Your task to perform on an android device: turn pop-ups on in chrome Image 0: 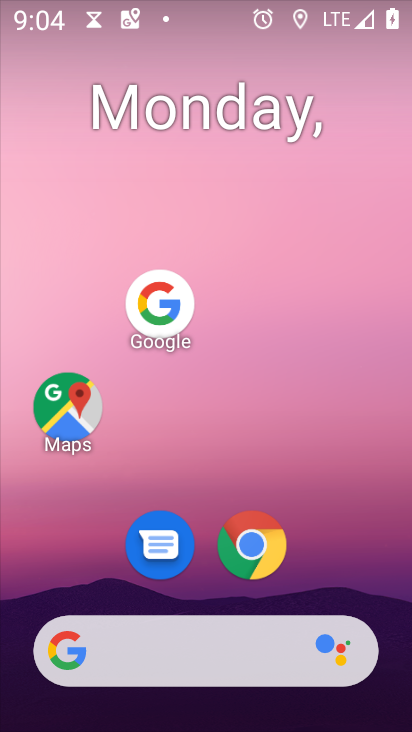
Step 0: press home button
Your task to perform on an android device: turn pop-ups on in chrome Image 1: 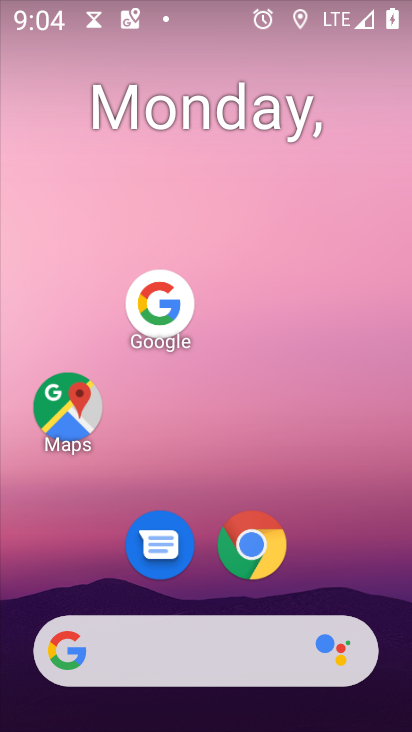
Step 1: click (246, 559)
Your task to perform on an android device: turn pop-ups on in chrome Image 2: 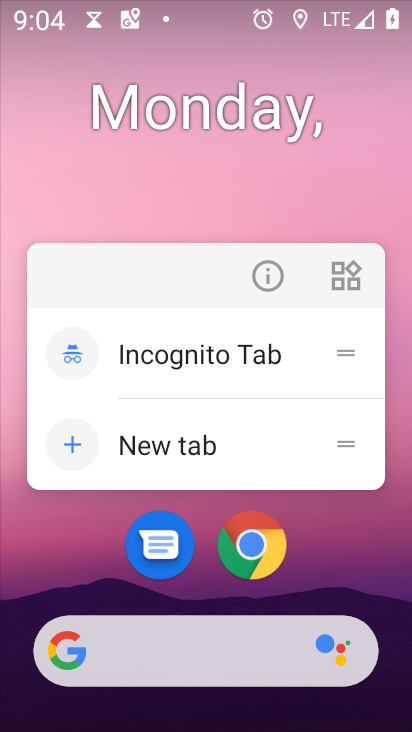
Step 2: click (251, 555)
Your task to perform on an android device: turn pop-ups on in chrome Image 3: 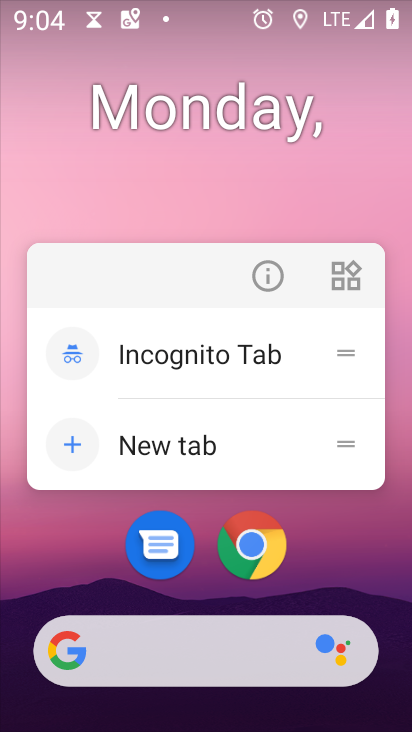
Step 3: click (271, 538)
Your task to perform on an android device: turn pop-ups on in chrome Image 4: 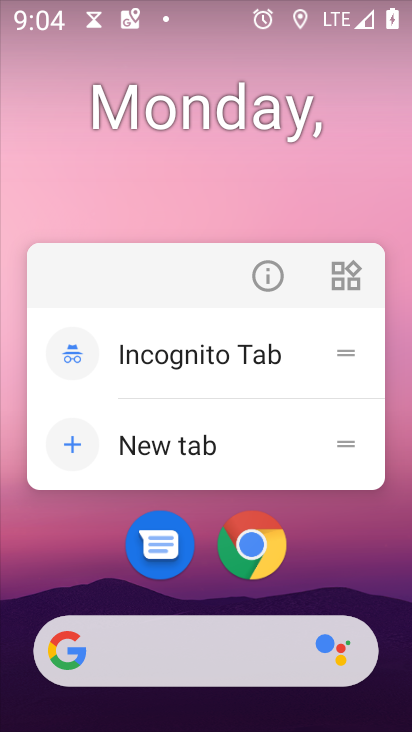
Step 4: click (271, 539)
Your task to perform on an android device: turn pop-ups on in chrome Image 5: 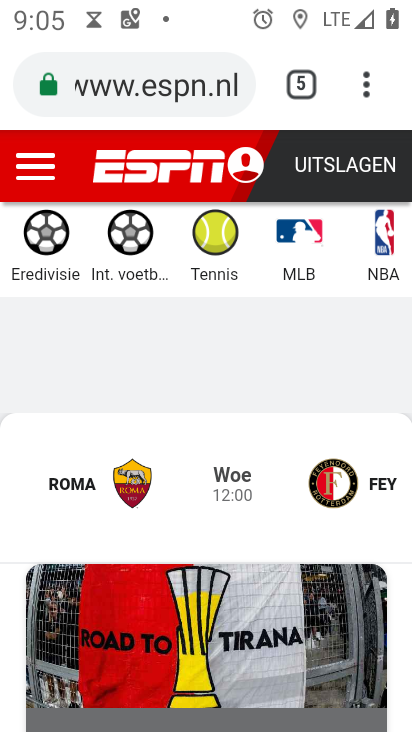
Step 5: drag from (363, 102) to (217, 606)
Your task to perform on an android device: turn pop-ups on in chrome Image 6: 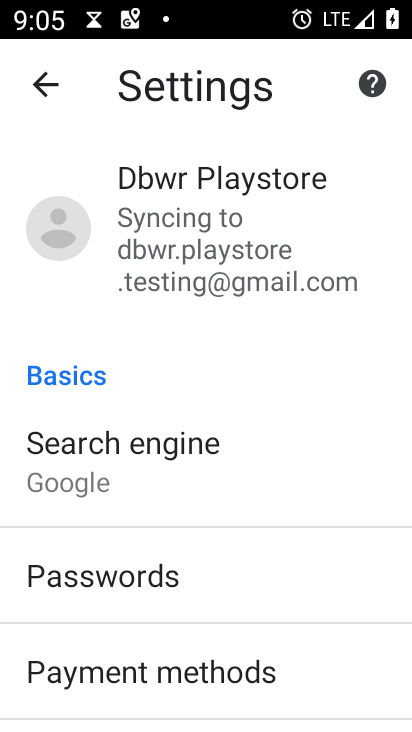
Step 6: drag from (191, 689) to (240, 250)
Your task to perform on an android device: turn pop-ups on in chrome Image 7: 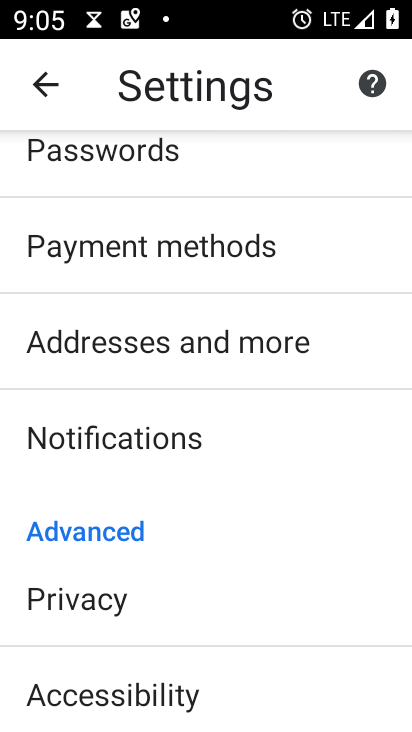
Step 7: drag from (221, 591) to (261, 219)
Your task to perform on an android device: turn pop-ups on in chrome Image 8: 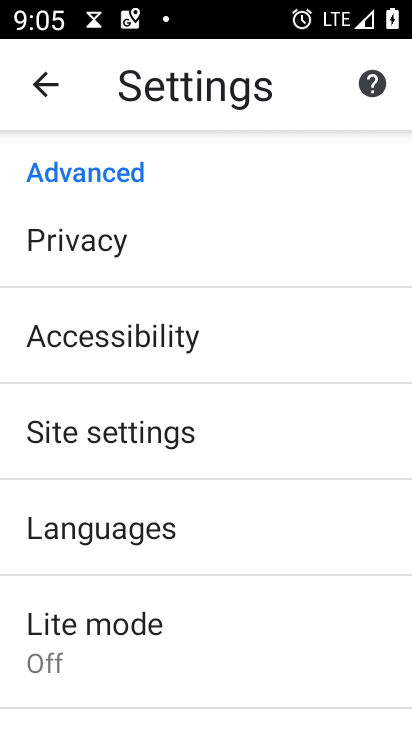
Step 8: click (154, 432)
Your task to perform on an android device: turn pop-ups on in chrome Image 9: 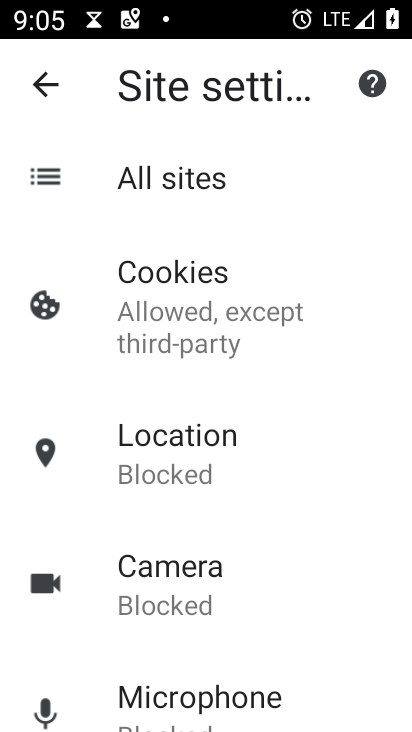
Step 9: drag from (259, 672) to (321, 150)
Your task to perform on an android device: turn pop-ups on in chrome Image 10: 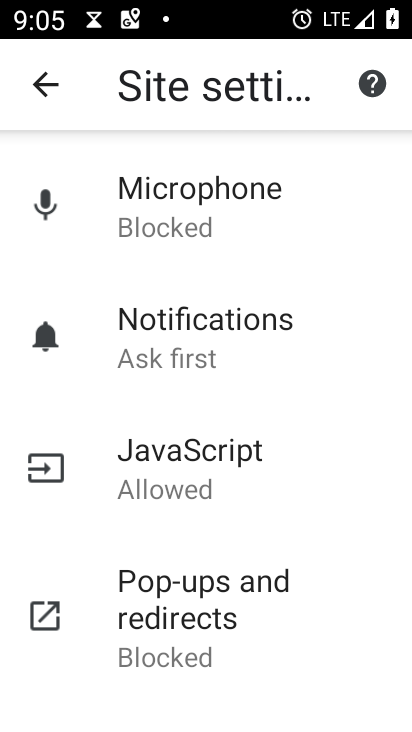
Step 10: click (197, 583)
Your task to perform on an android device: turn pop-ups on in chrome Image 11: 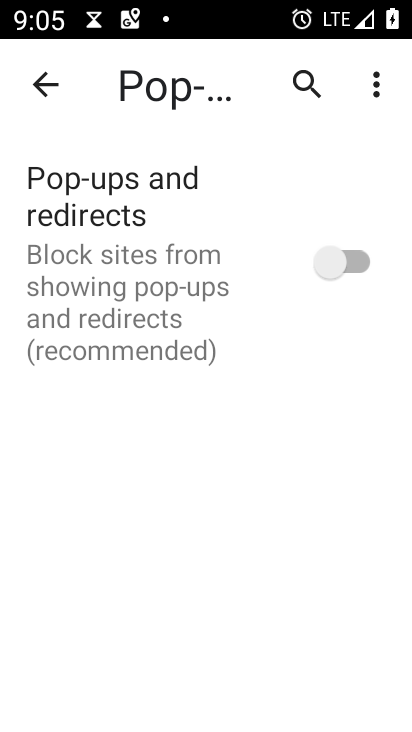
Step 11: click (359, 263)
Your task to perform on an android device: turn pop-ups on in chrome Image 12: 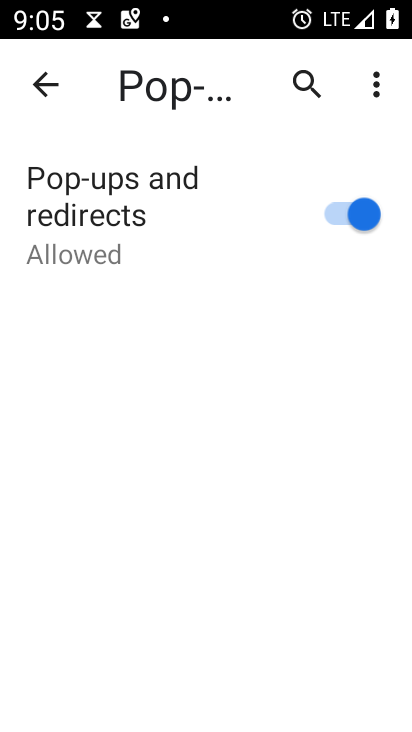
Step 12: task complete